Your task to perform on an android device: Clear all items from cart on newegg. Image 0: 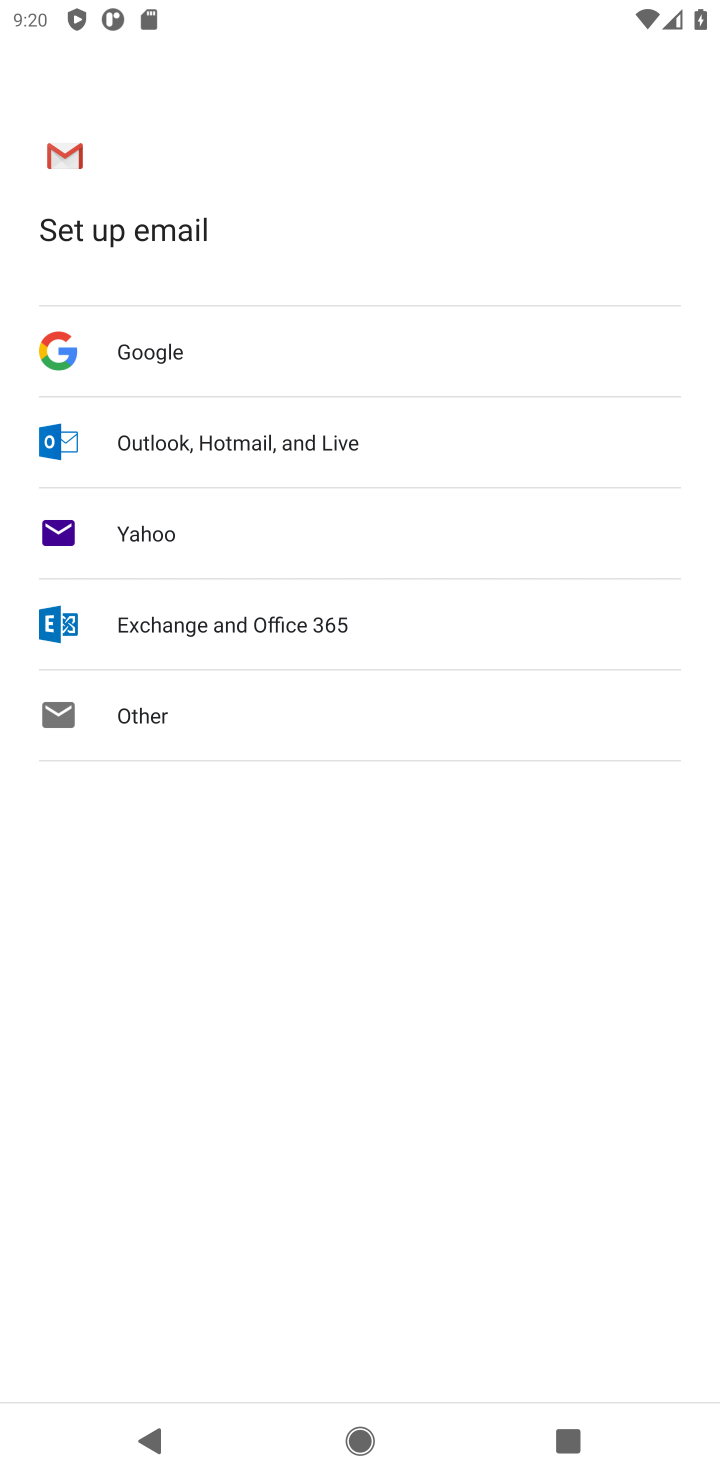
Step 0: press home button
Your task to perform on an android device: Clear all items from cart on newegg. Image 1: 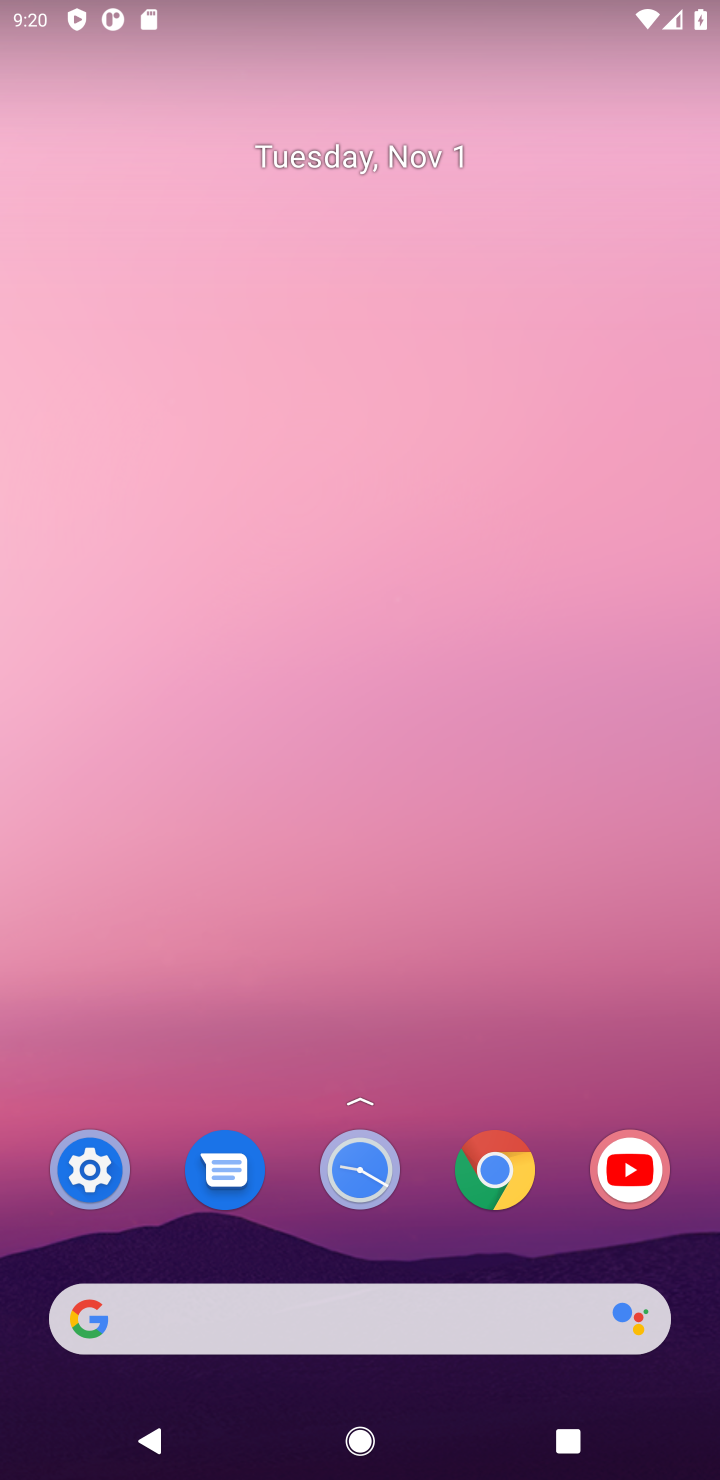
Step 1: drag from (381, 1074) to (479, 7)
Your task to perform on an android device: Clear all items from cart on newegg. Image 2: 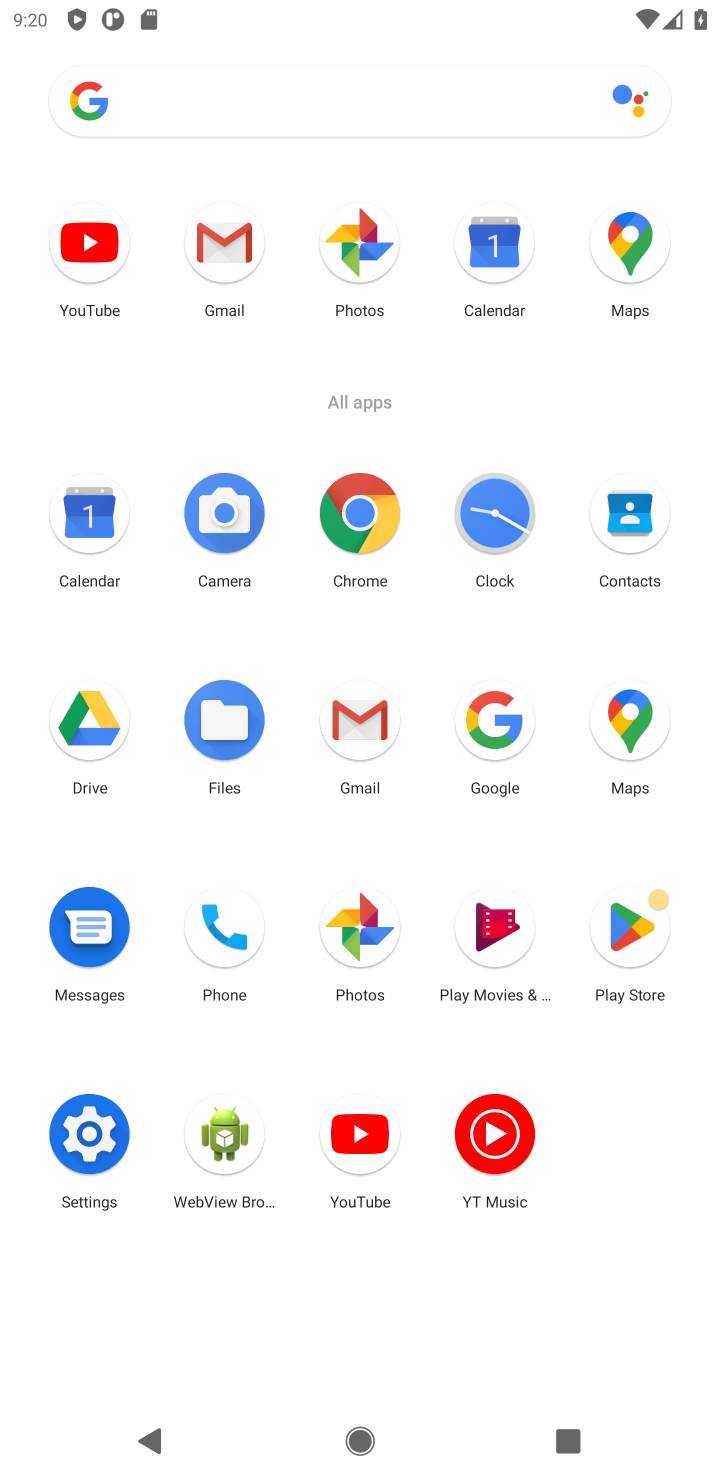
Step 2: click (352, 497)
Your task to perform on an android device: Clear all items from cart on newegg. Image 3: 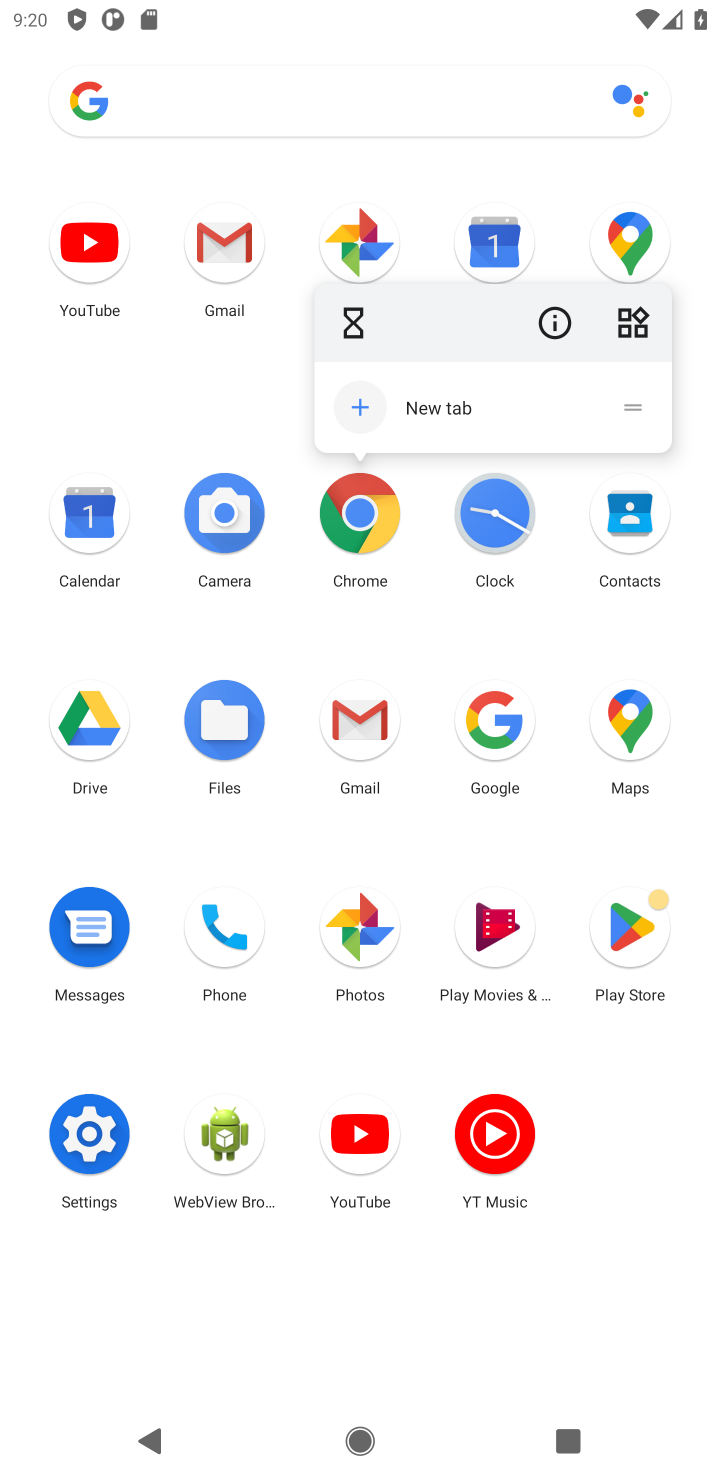
Step 3: click (361, 520)
Your task to perform on an android device: Clear all items from cart on newegg. Image 4: 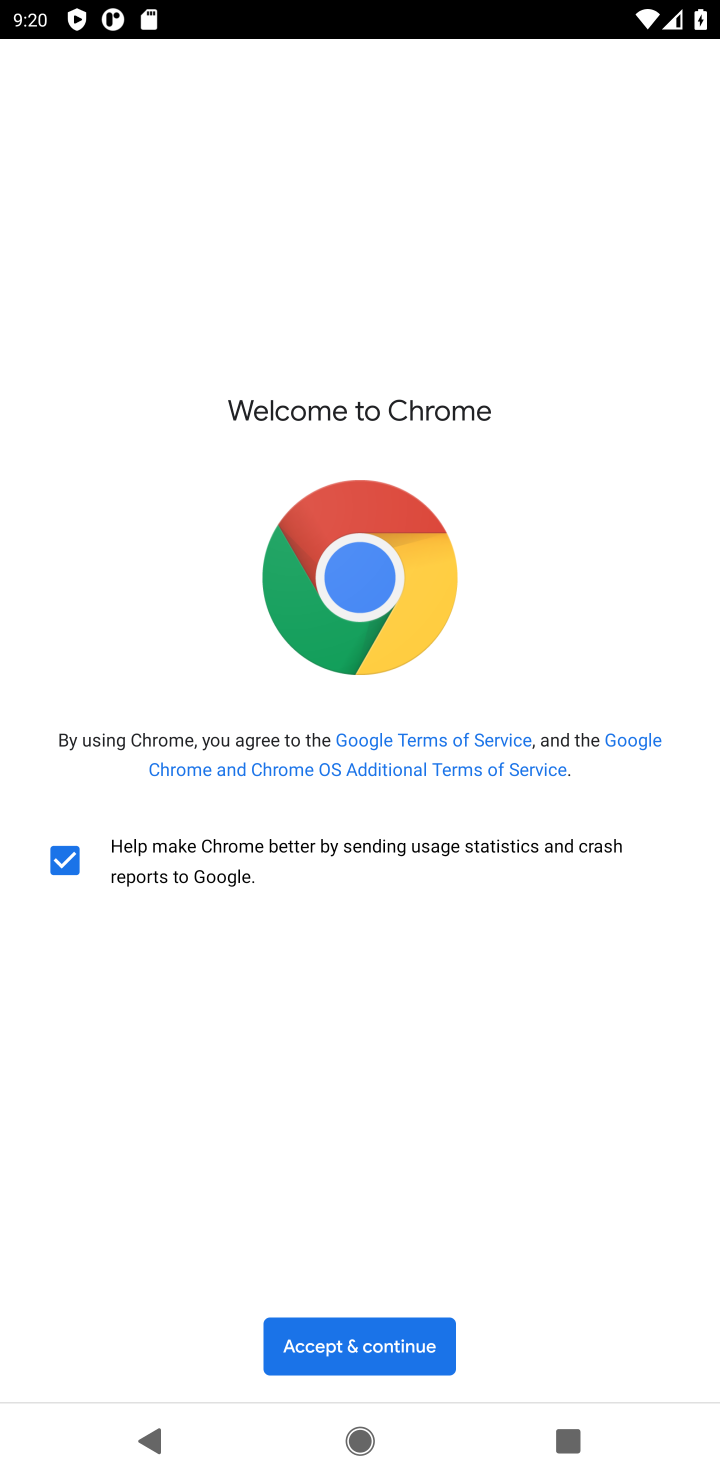
Step 4: click (346, 514)
Your task to perform on an android device: Clear all items from cart on newegg. Image 5: 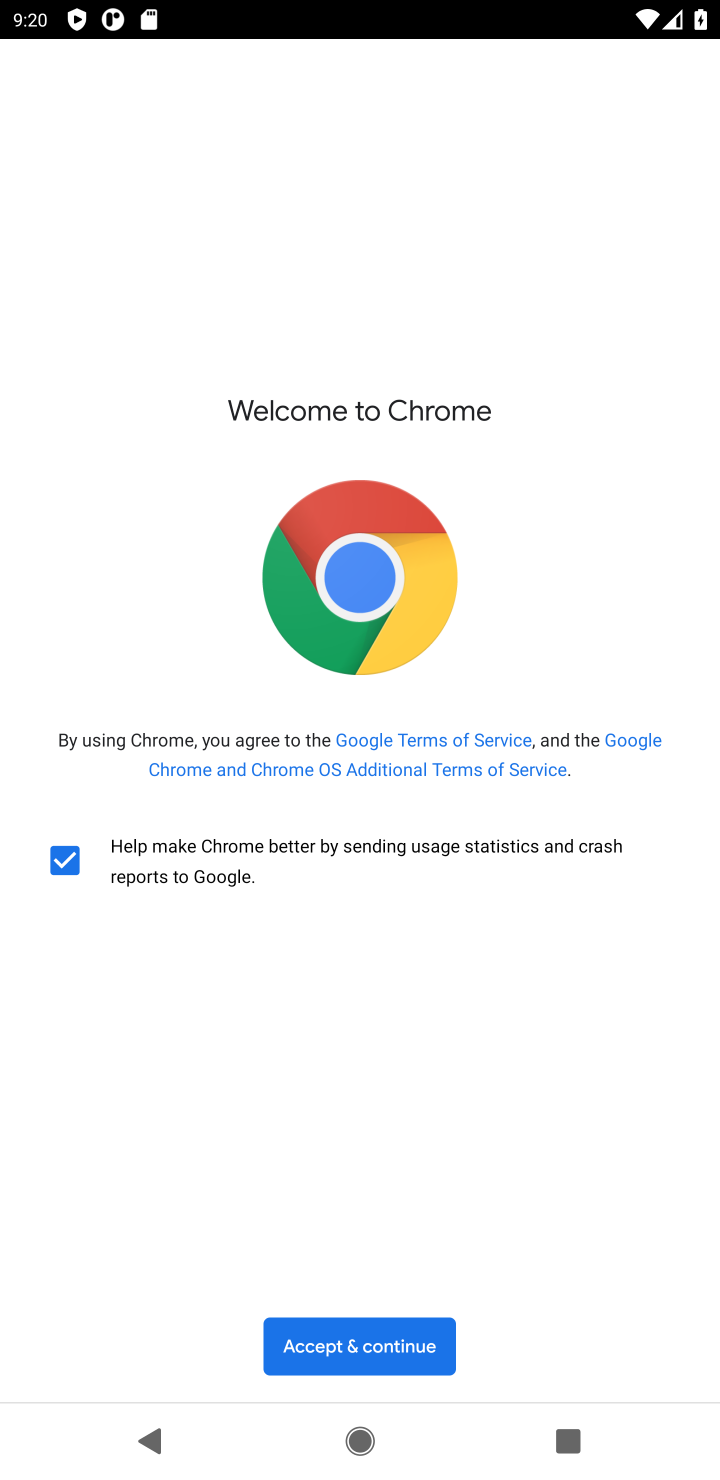
Step 5: click (352, 1339)
Your task to perform on an android device: Clear all items from cart on newegg. Image 6: 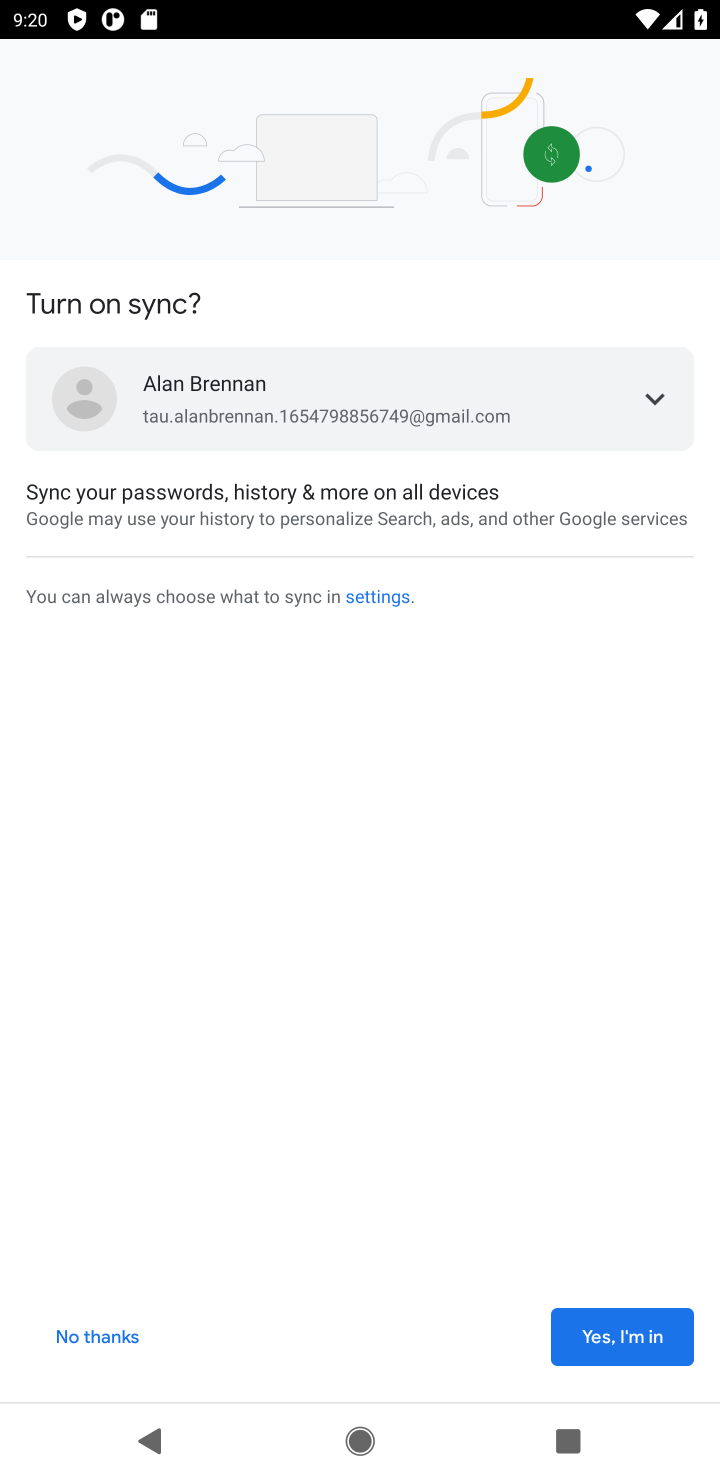
Step 6: click (613, 1340)
Your task to perform on an android device: Clear all items from cart on newegg. Image 7: 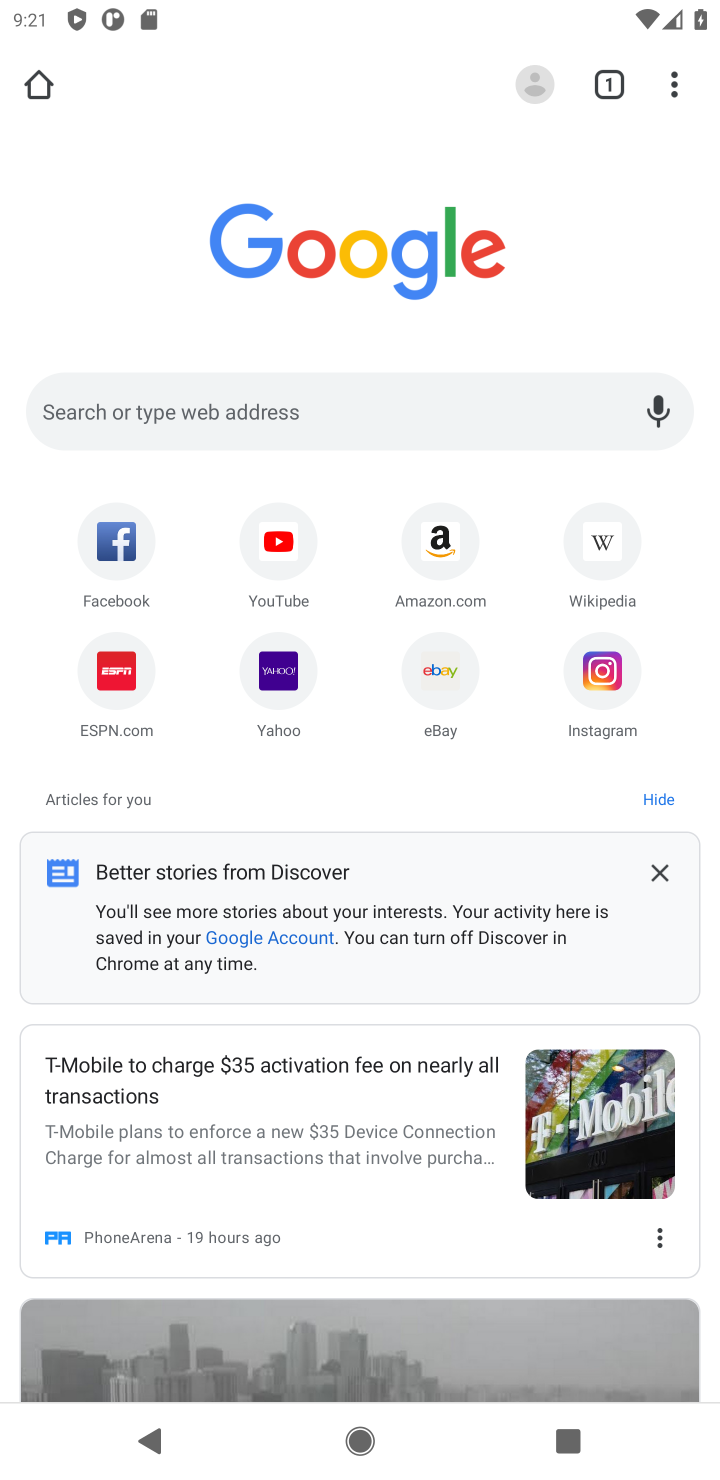
Step 7: click (136, 411)
Your task to perform on an android device: Clear all items from cart on newegg. Image 8: 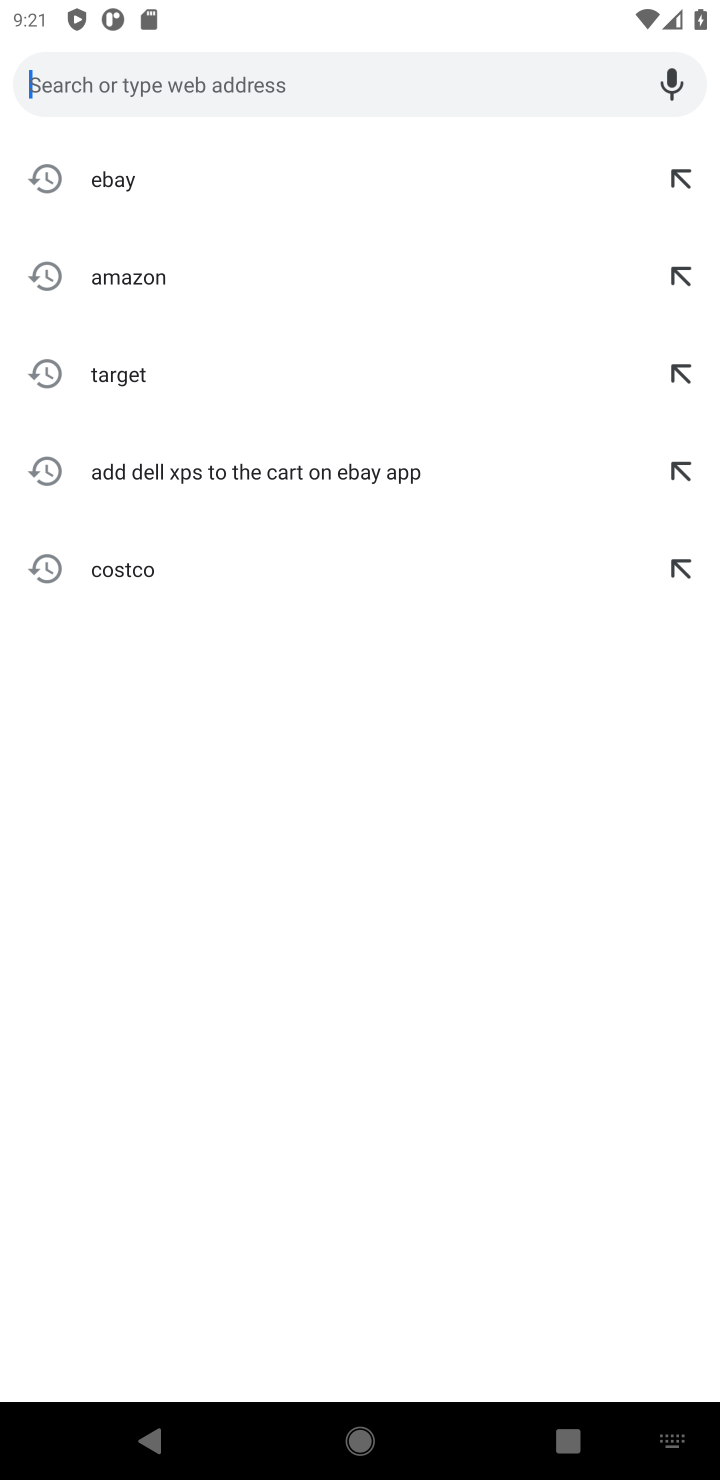
Step 8: type "newegg"
Your task to perform on an android device: Clear all items from cart on newegg. Image 9: 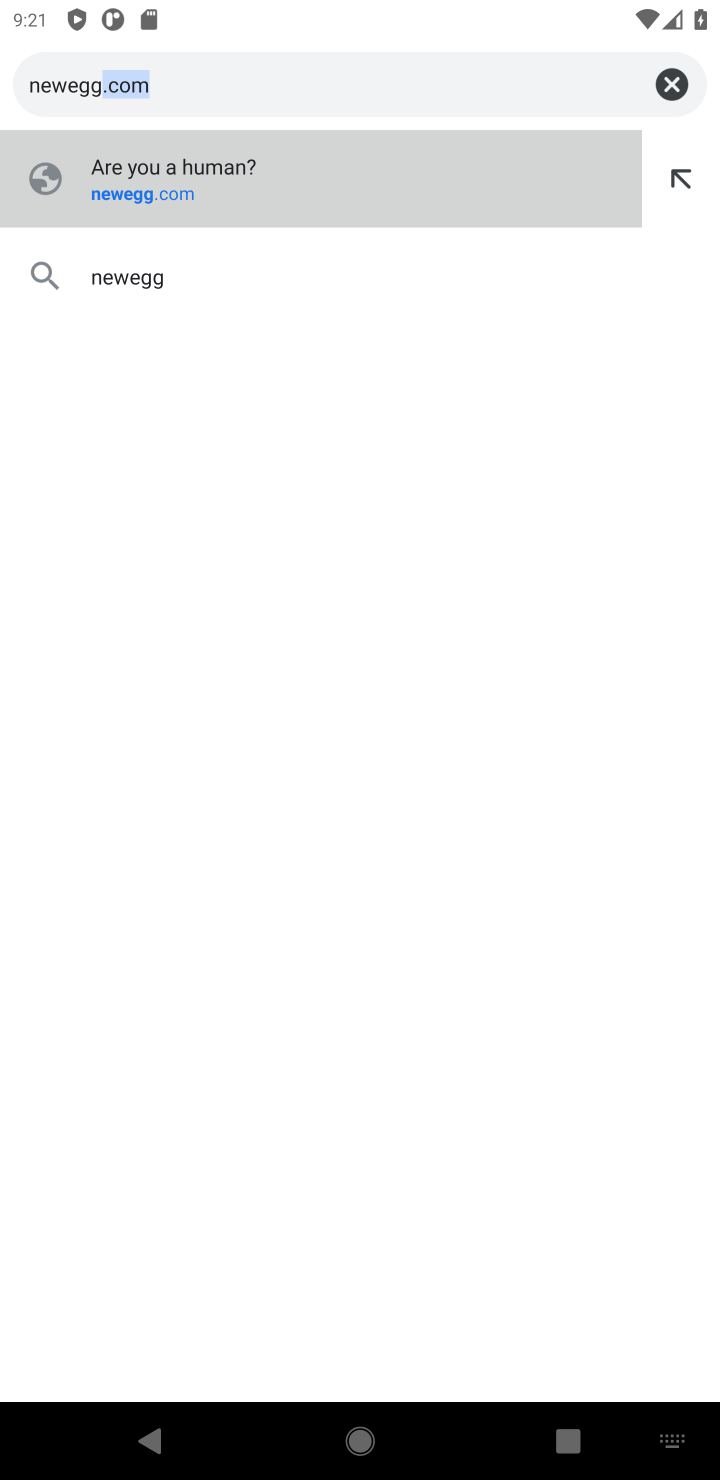
Step 9: click (151, 281)
Your task to perform on an android device: Clear all items from cart on newegg. Image 10: 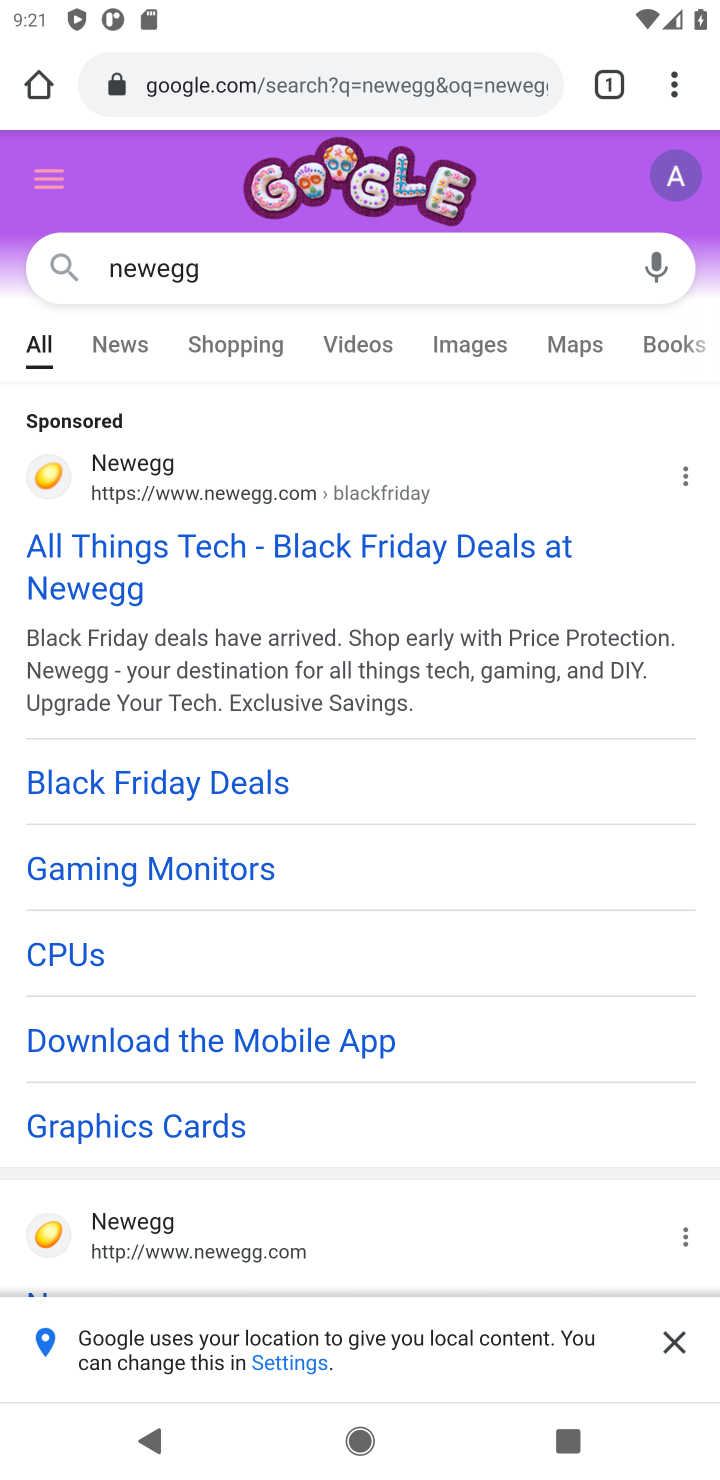
Step 10: drag from (308, 1226) to (335, 660)
Your task to perform on an android device: Clear all items from cart on newegg. Image 11: 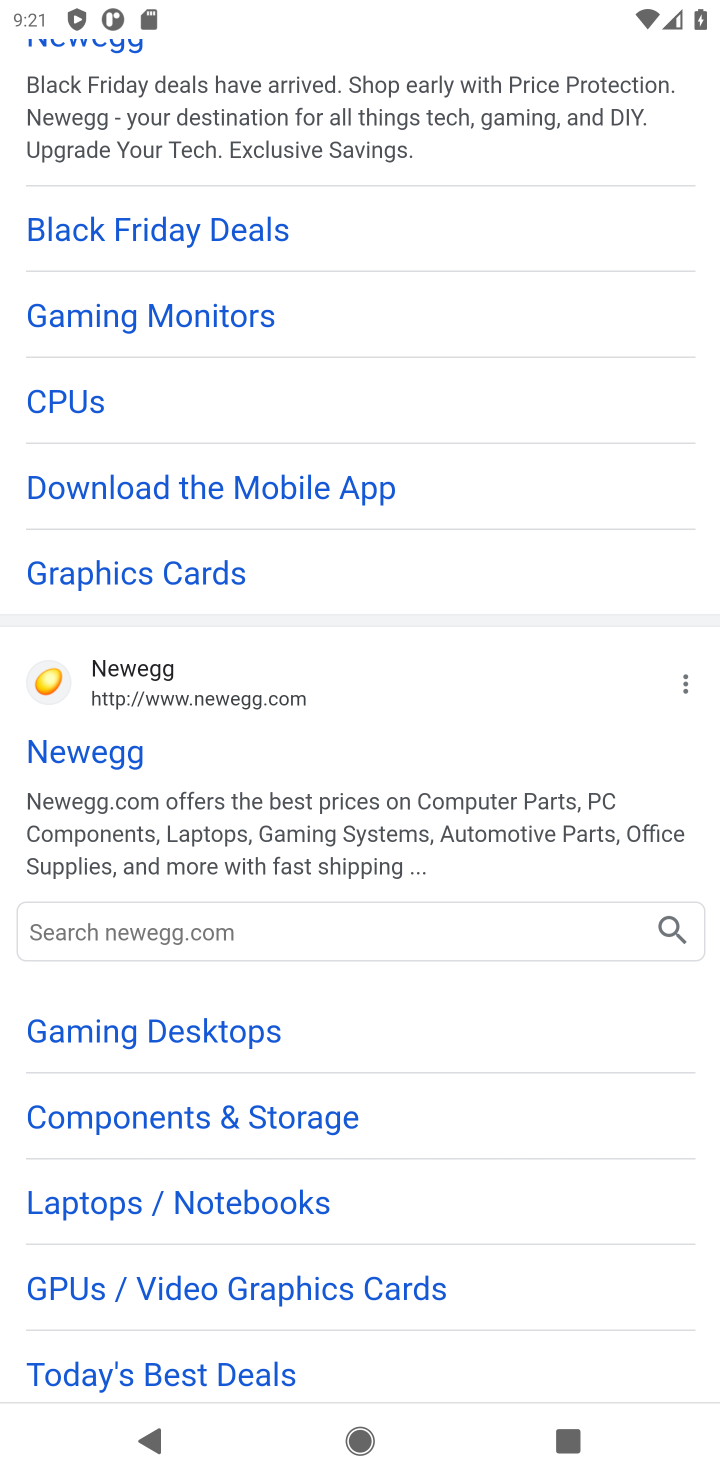
Step 11: click (160, 751)
Your task to perform on an android device: Clear all items from cart on newegg. Image 12: 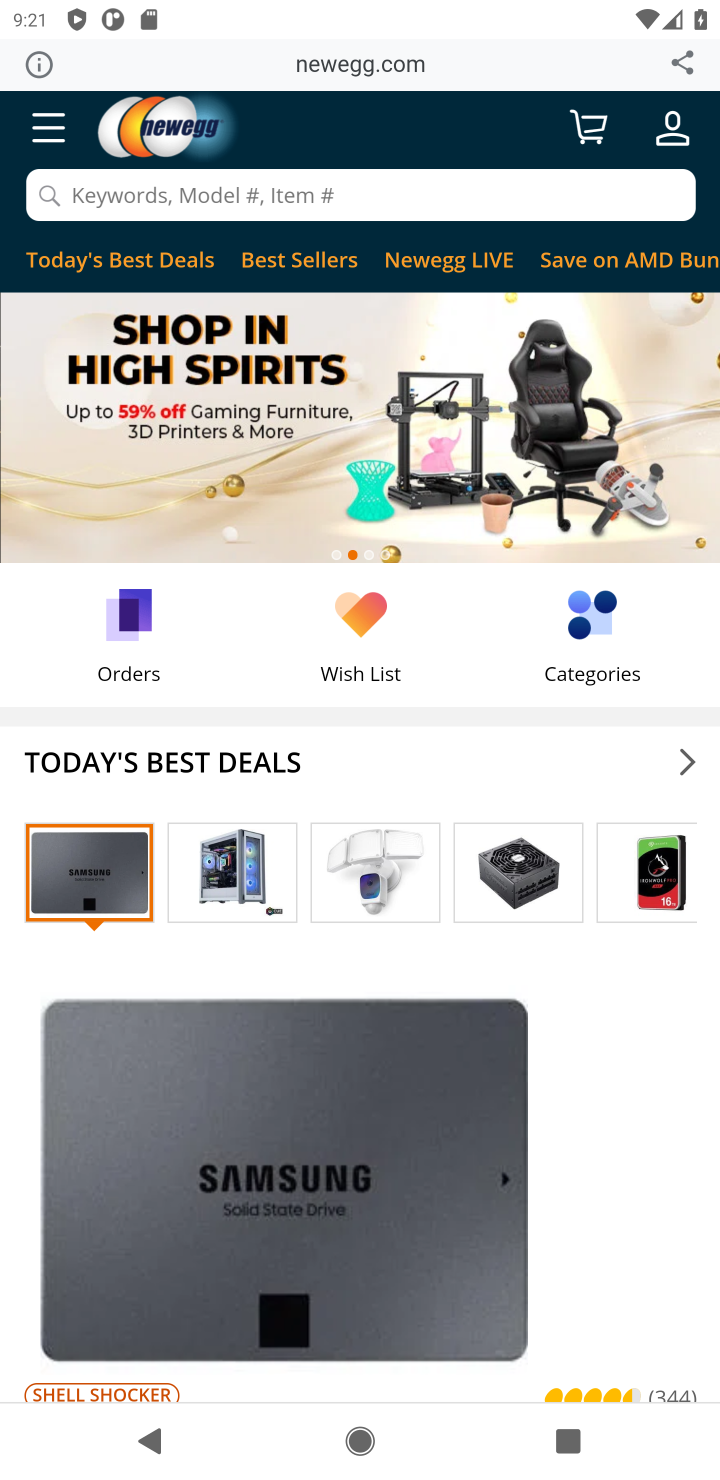
Step 12: drag from (579, 1239) to (604, 604)
Your task to perform on an android device: Clear all items from cart on newegg. Image 13: 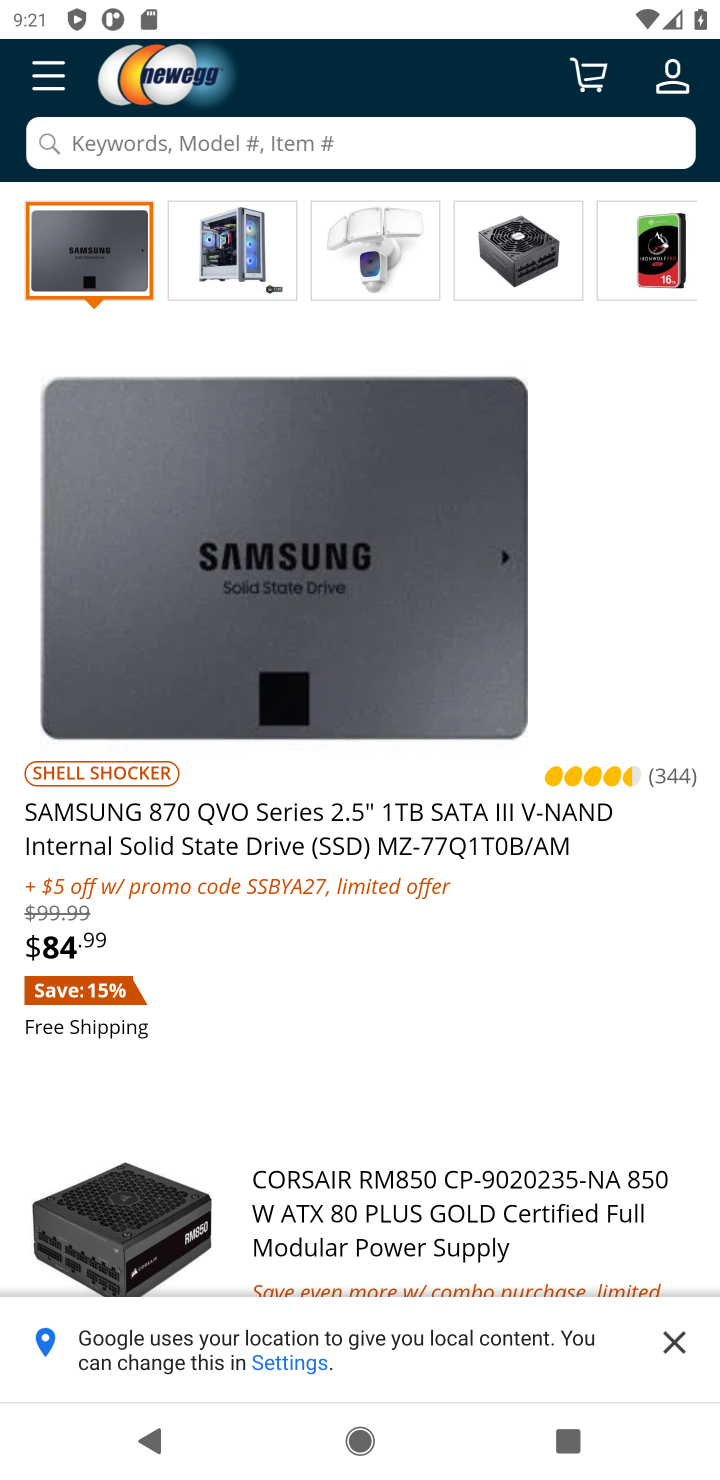
Step 13: click (185, 138)
Your task to perform on an android device: Clear all items from cart on newegg. Image 14: 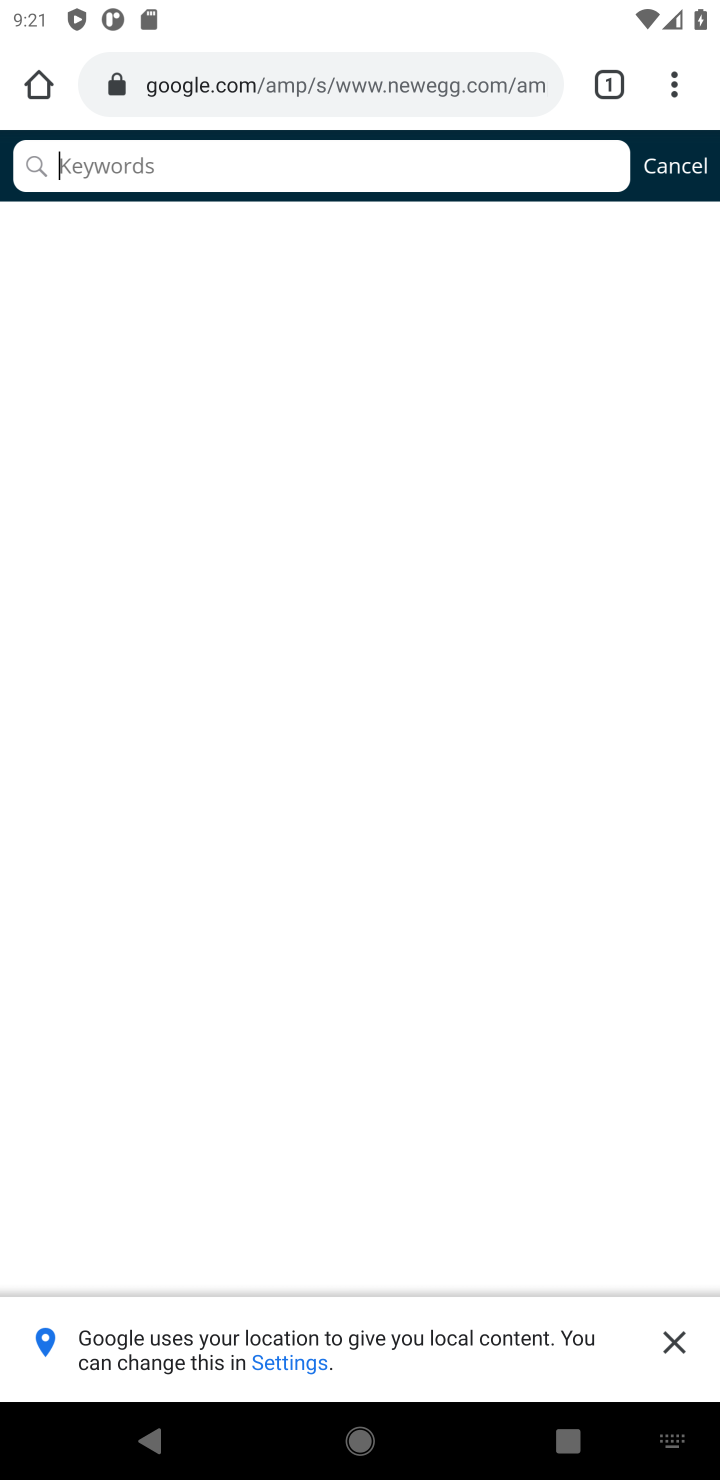
Step 14: press back button
Your task to perform on an android device: Clear all items from cart on newegg. Image 15: 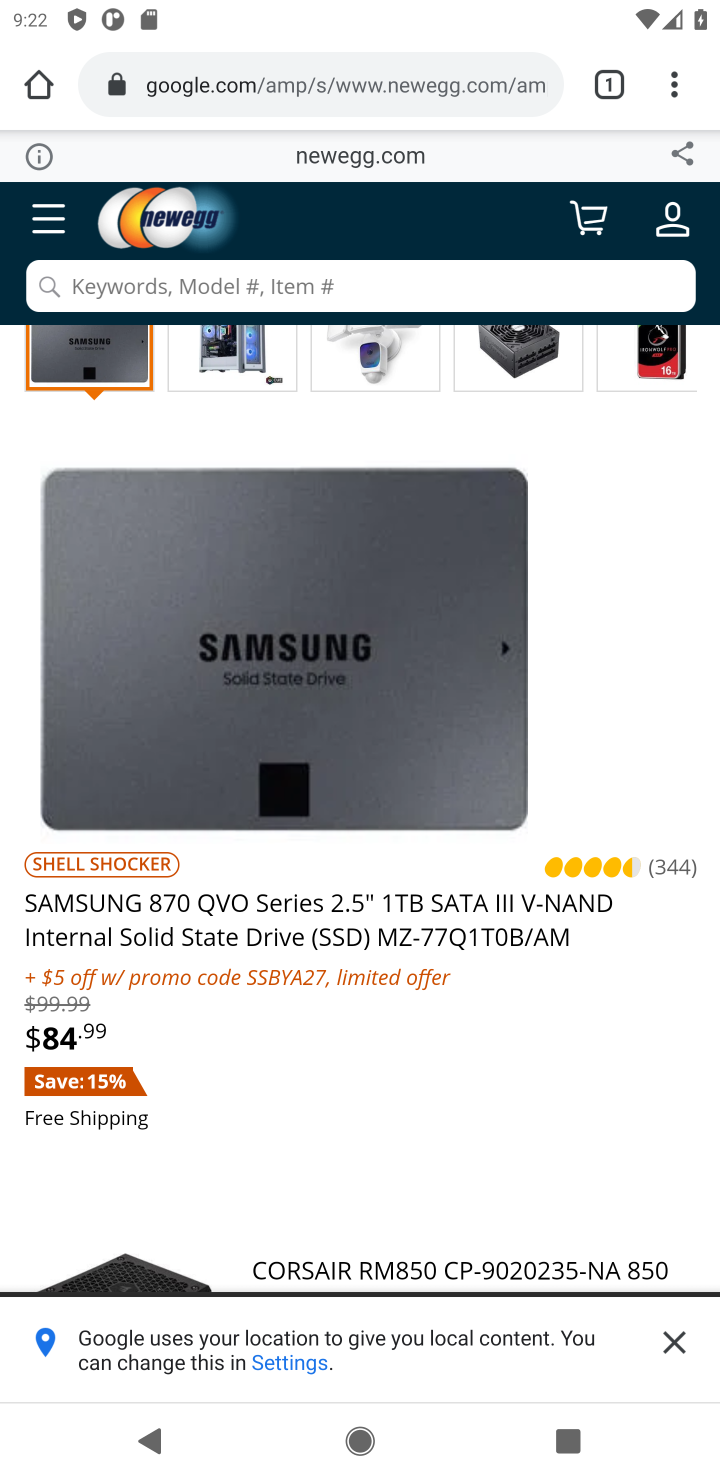
Step 15: click (585, 217)
Your task to perform on an android device: Clear all items from cart on newegg. Image 16: 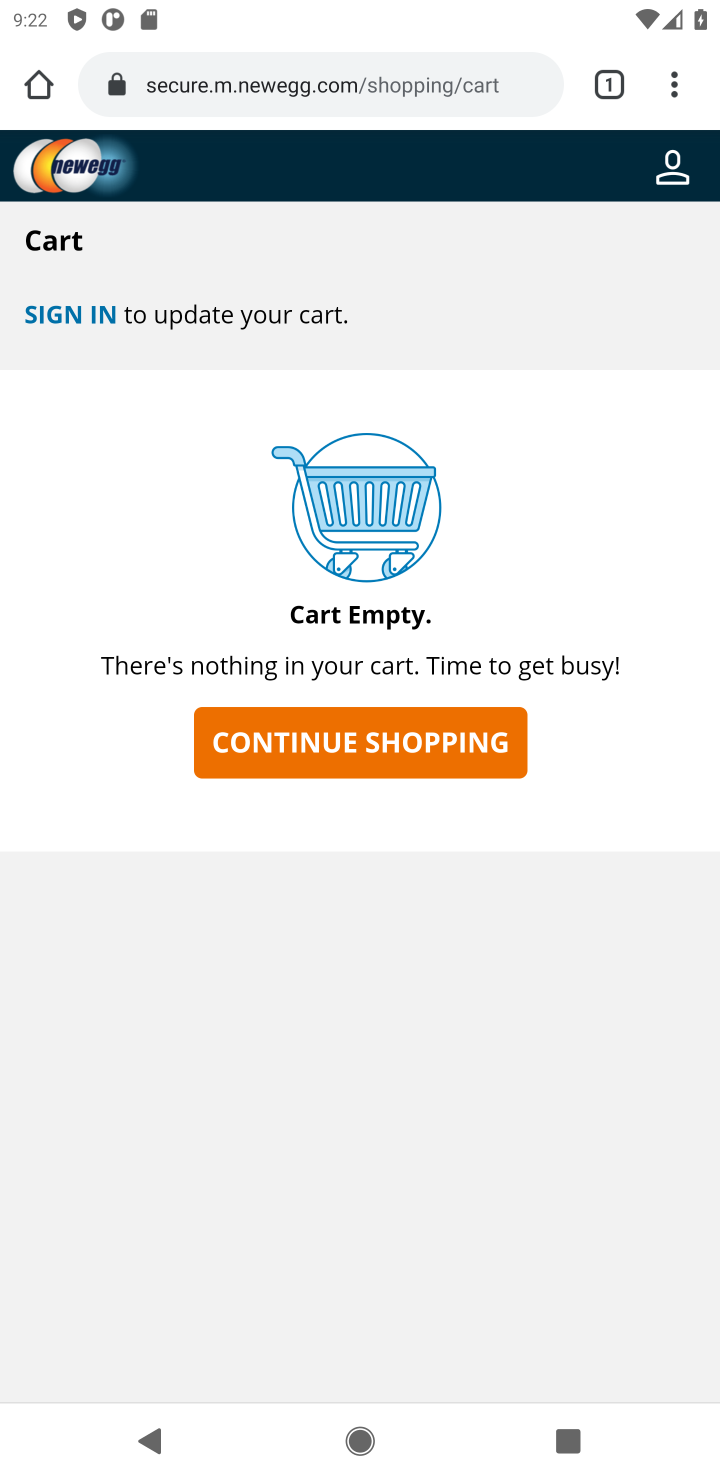
Step 16: task complete